Your task to perform on an android device: Search for pizza restaurants on Maps Image 0: 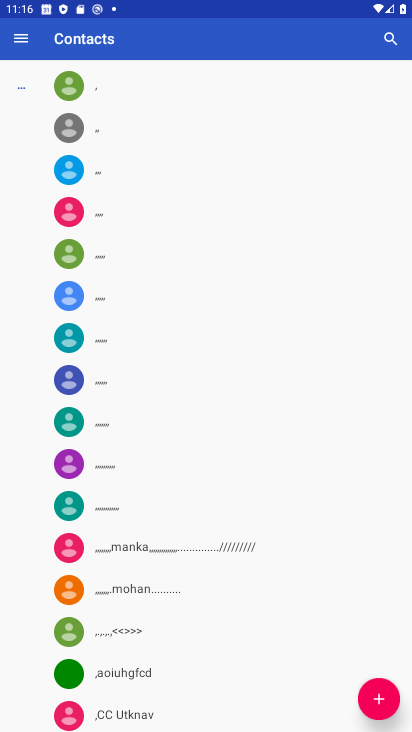
Step 0: press home button
Your task to perform on an android device: Search for pizza restaurants on Maps Image 1: 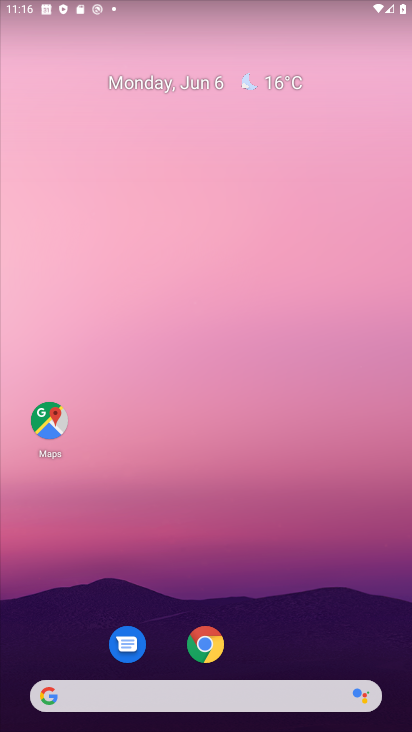
Step 1: click (47, 415)
Your task to perform on an android device: Search for pizza restaurants on Maps Image 2: 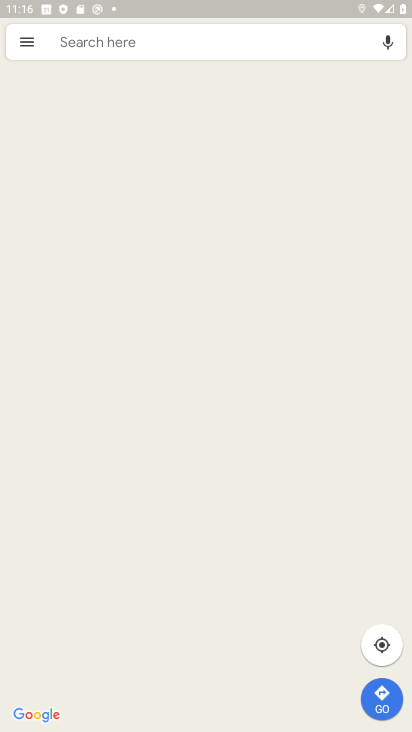
Step 2: click (205, 36)
Your task to perform on an android device: Search for pizza restaurants on Maps Image 3: 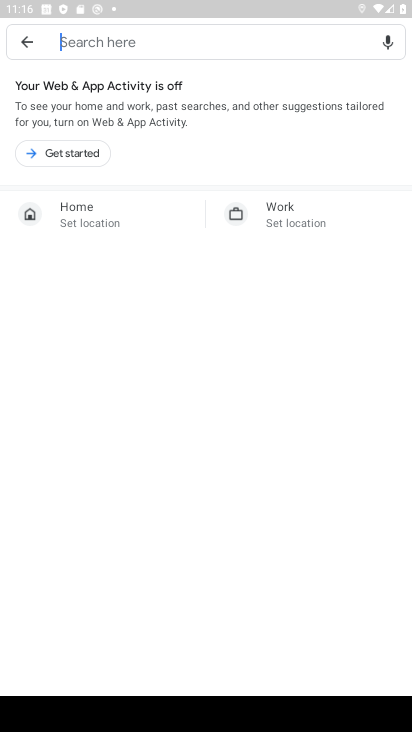
Step 3: click (194, 41)
Your task to perform on an android device: Search for pizza restaurants on Maps Image 4: 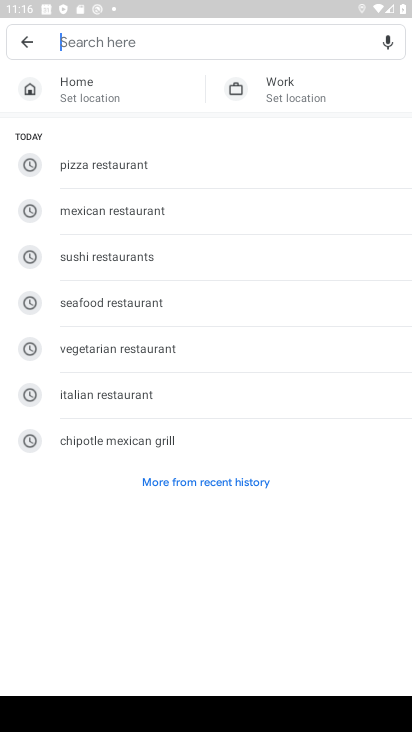
Step 4: click (145, 176)
Your task to perform on an android device: Search for pizza restaurants on Maps Image 5: 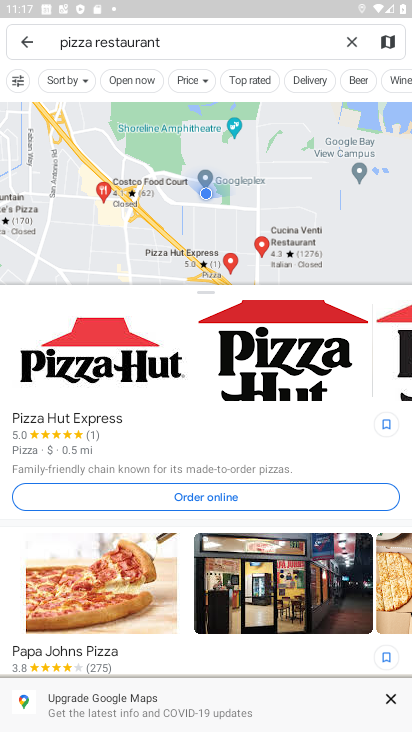
Step 5: task complete